Your task to perform on an android device: When is my next meeting? Image 0: 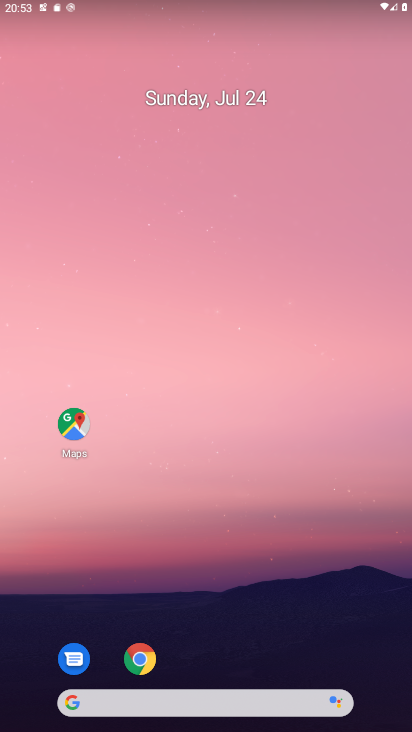
Step 0: drag from (208, 723) to (190, 178)
Your task to perform on an android device: When is my next meeting? Image 1: 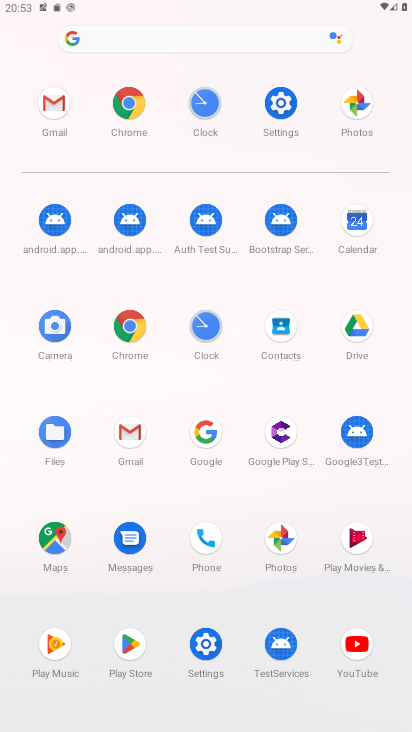
Step 1: click (366, 211)
Your task to perform on an android device: When is my next meeting? Image 2: 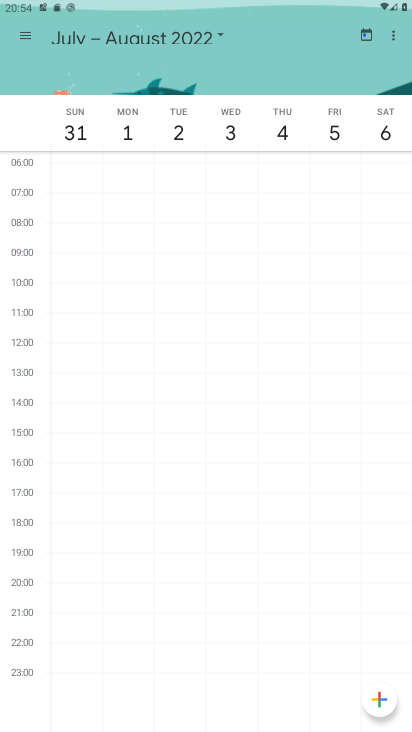
Step 2: click (219, 30)
Your task to perform on an android device: When is my next meeting? Image 3: 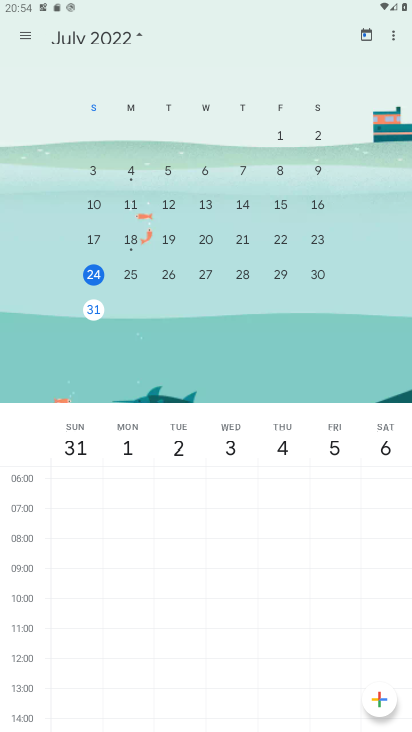
Step 3: click (94, 237)
Your task to perform on an android device: When is my next meeting? Image 4: 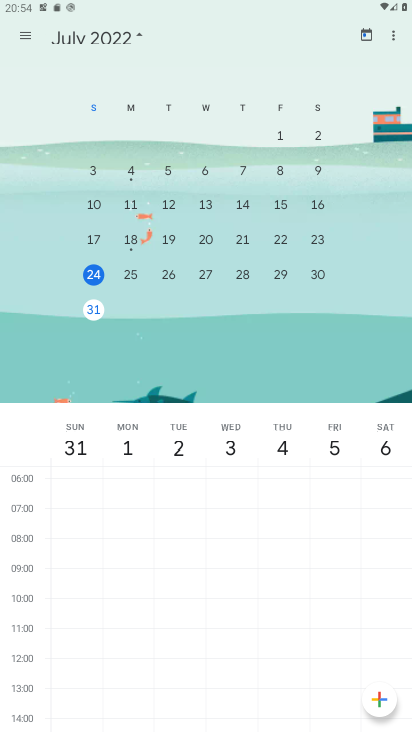
Step 4: click (97, 271)
Your task to perform on an android device: When is my next meeting? Image 5: 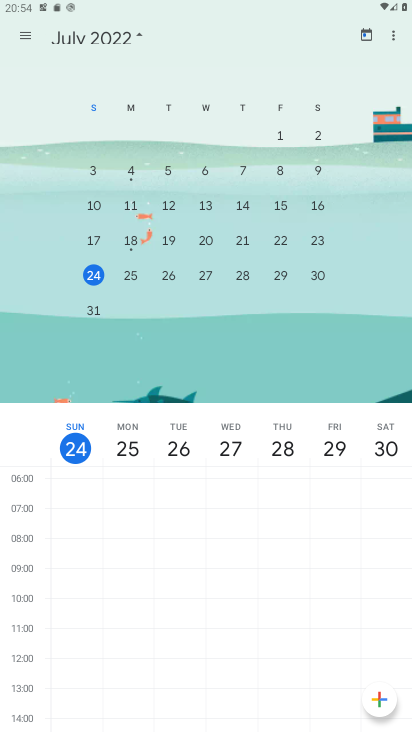
Step 5: click (129, 442)
Your task to perform on an android device: When is my next meeting? Image 6: 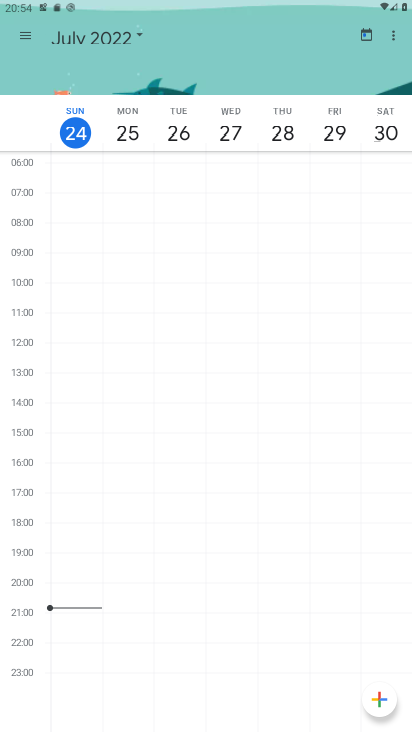
Step 6: click (133, 131)
Your task to perform on an android device: When is my next meeting? Image 7: 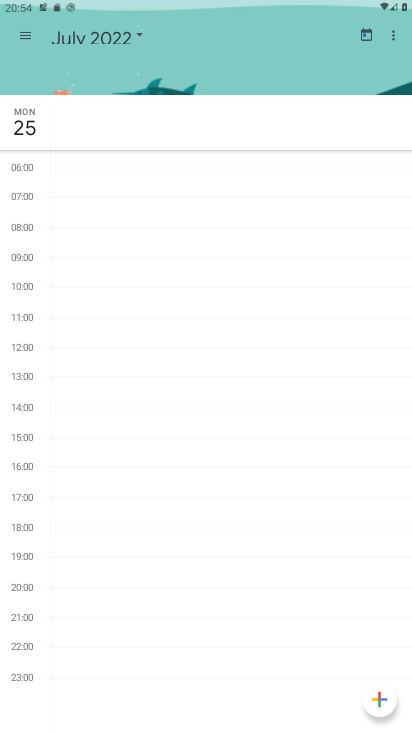
Step 7: task complete